Your task to perform on an android device: Go to eBay Image 0: 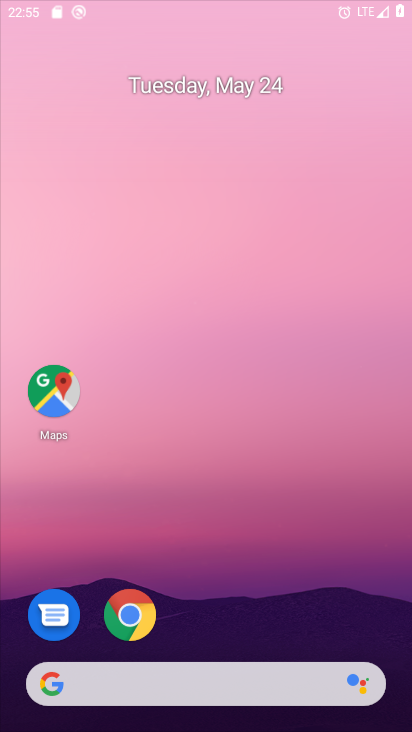
Step 0: drag from (275, 277) to (289, 45)
Your task to perform on an android device: Go to eBay Image 1: 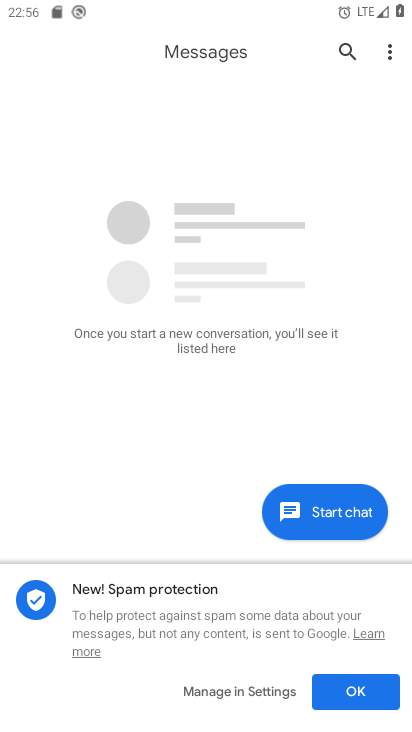
Step 1: press home button
Your task to perform on an android device: Go to eBay Image 2: 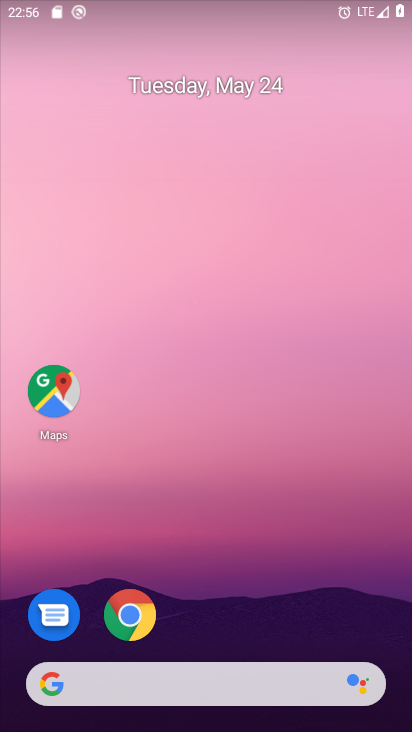
Step 2: click (124, 607)
Your task to perform on an android device: Go to eBay Image 3: 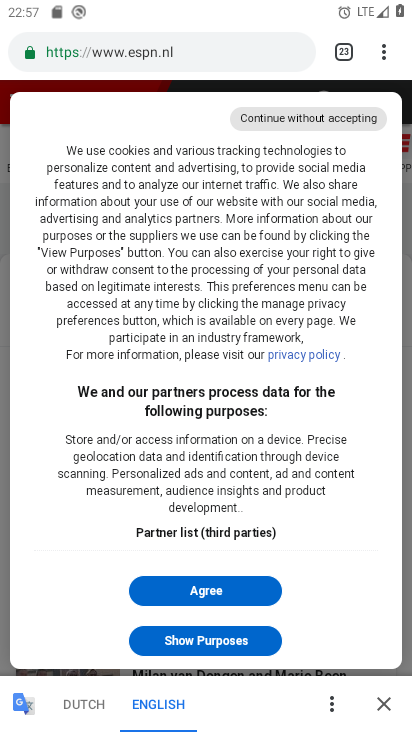
Step 3: click (383, 32)
Your task to perform on an android device: Go to eBay Image 4: 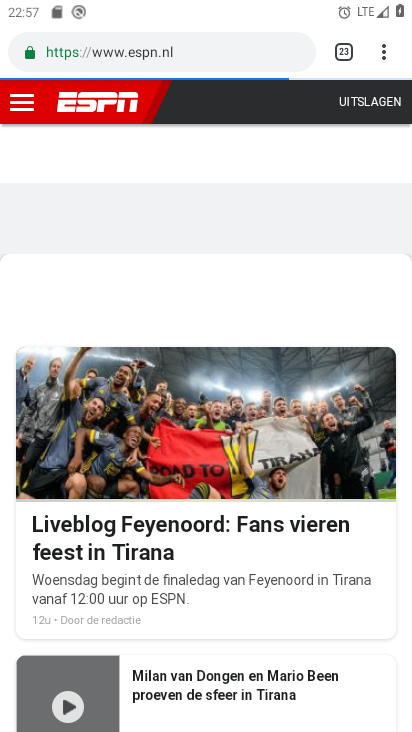
Step 4: click (386, 43)
Your task to perform on an android device: Go to eBay Image 5: 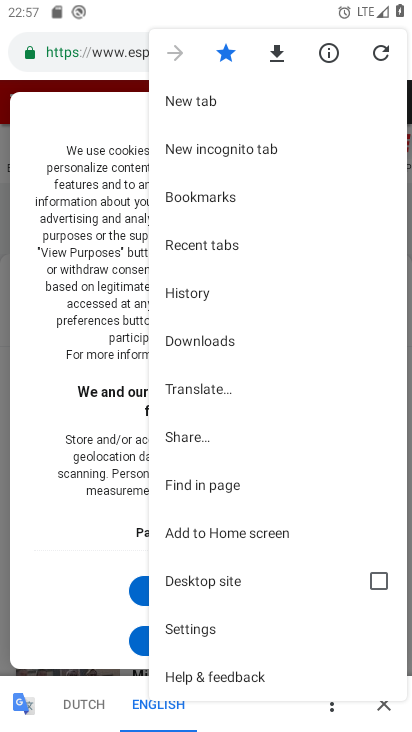
Step 5: click (205, 93)
Your task to perform on an android device: Go to eBay Image 6: 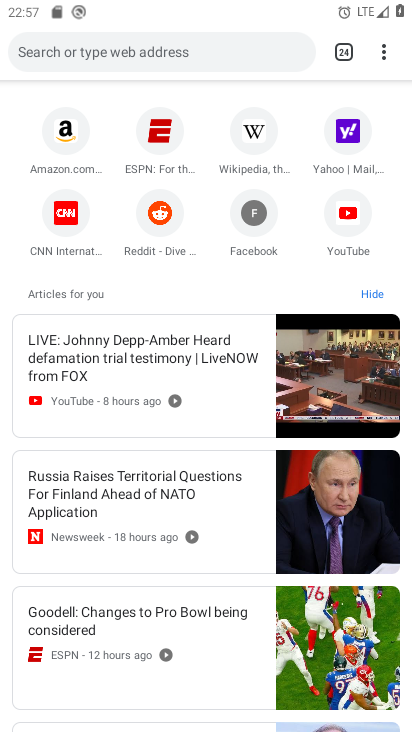
Step 6: click (228, 42)
Your task to perform on an android device: Go to eBay Image 7: 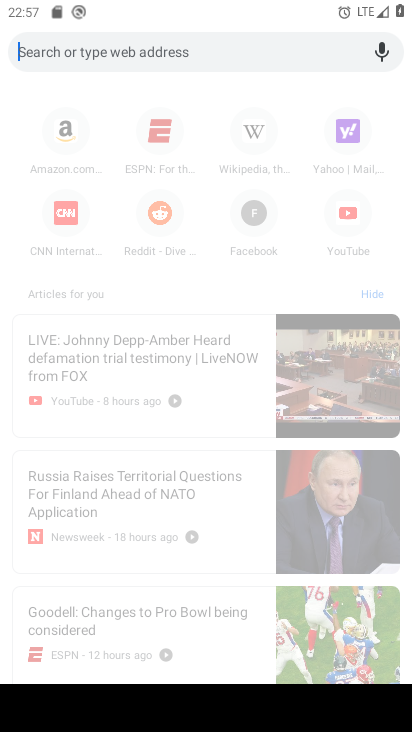
Step 7: type " eBay"
Your task to perform on an android device: Go to eBay Image 8: 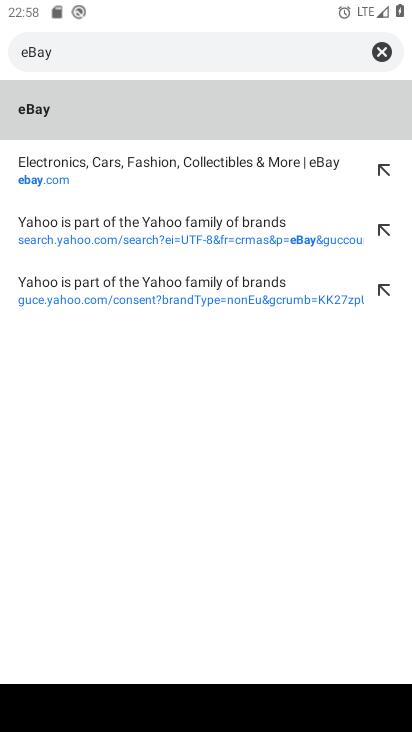
Step 8: click (187, 127)
Your task to perform on an android device: Go to eBay Image 9: 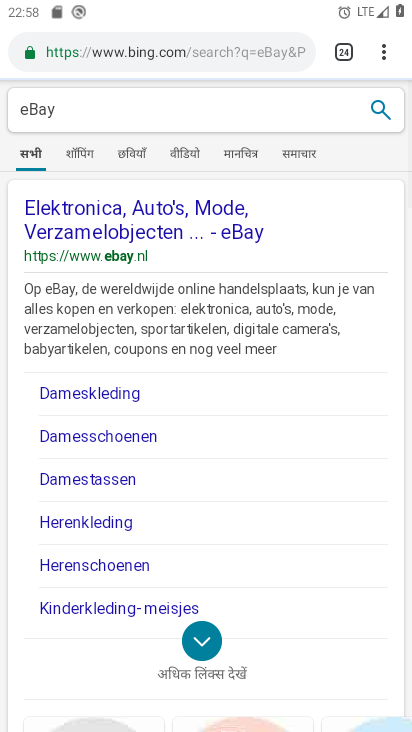
Step 9: task complete